Your task to perform on an android device: turn off airplane mode Image 0: 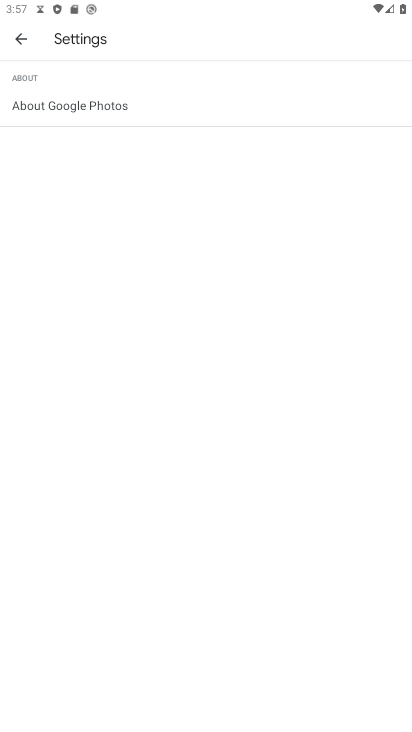
Step 0: press home button
Your task to perform on an android device: turn off airplane mode Image 1: 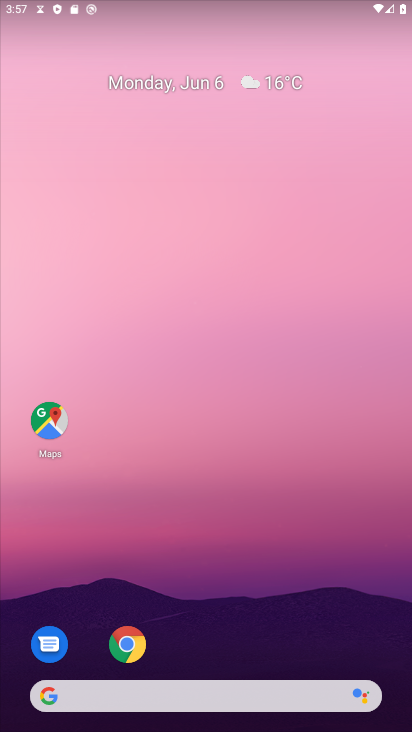
Step 1: task complete